Your task to perform on an android device: Empty the shopping cart on newegg. Add logitech g pro to the cart on newegg, then select checkout. Image 0: 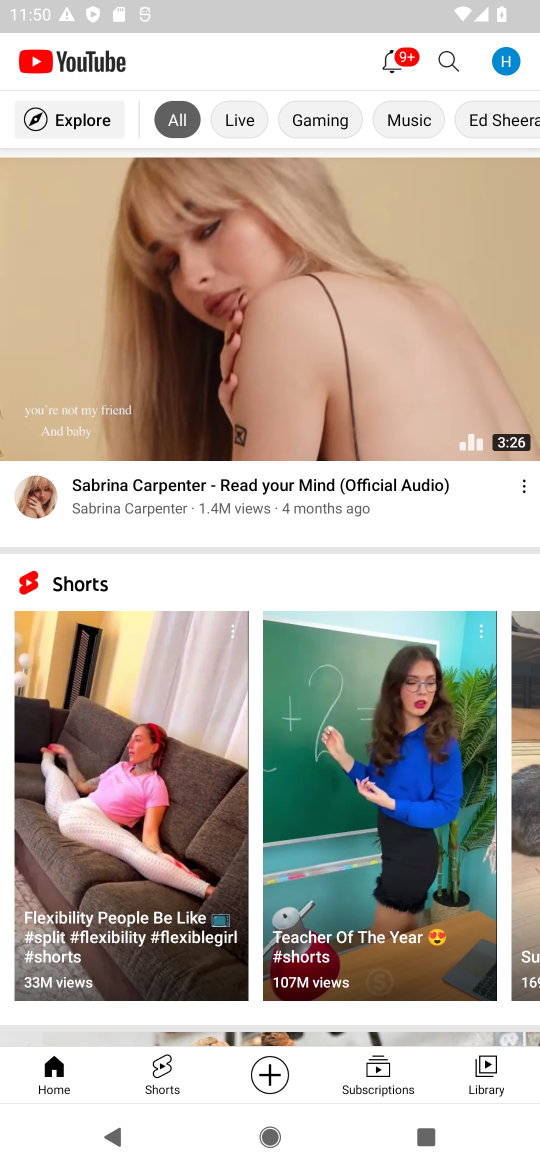
Step 0: press home button
Your task to perform on an android device: Empty the shopping cart on newegg. Add logitech g pro to the cart on newegg, then select checkout. Image 1: 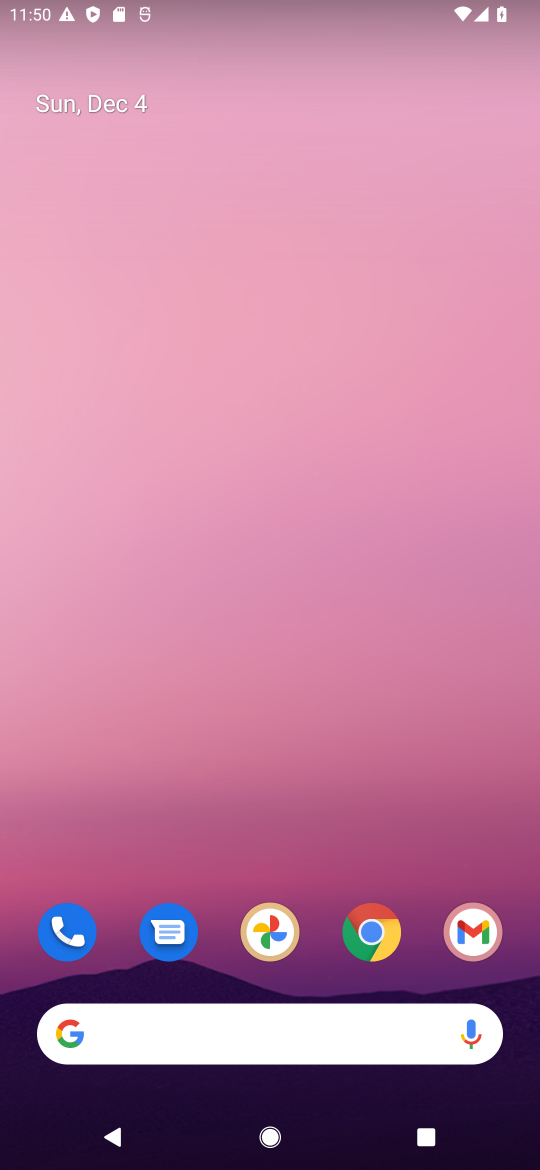
Step 1: click (374, 938)
Your task to perform on an android device: Empty the shopping cart on newegg. Add logitech g pro to the cart on newegg, then select checkout. Image 2: 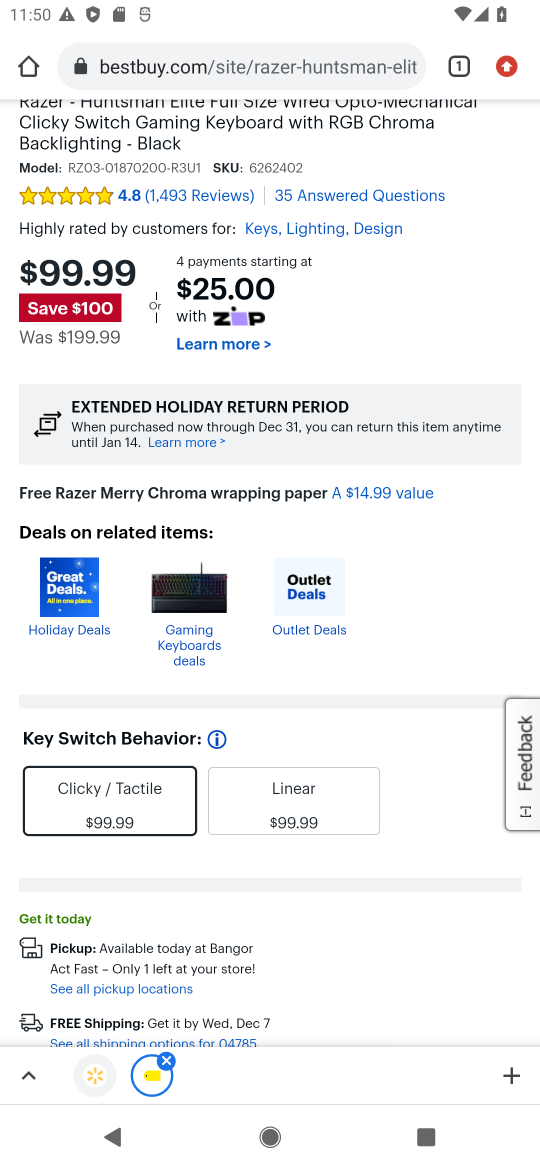
Step 2: click (281, 65)
Your task to perform on an android device: Empty the shopping cart on newegg. Add logitech g pro to the cart on newegg, then select checkout. Image 3: 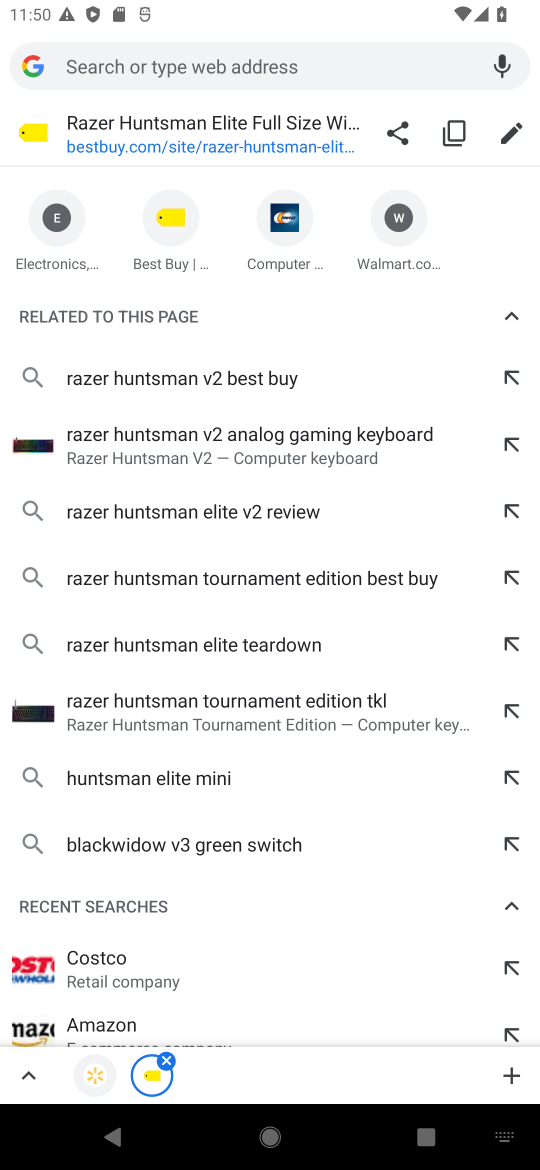
Step 3: type "newegg"
Your task to perform on an android device: Empty the shopping cart on newegg. Add logitech g pro to the cart on newegg, then select checkout. Image 4: 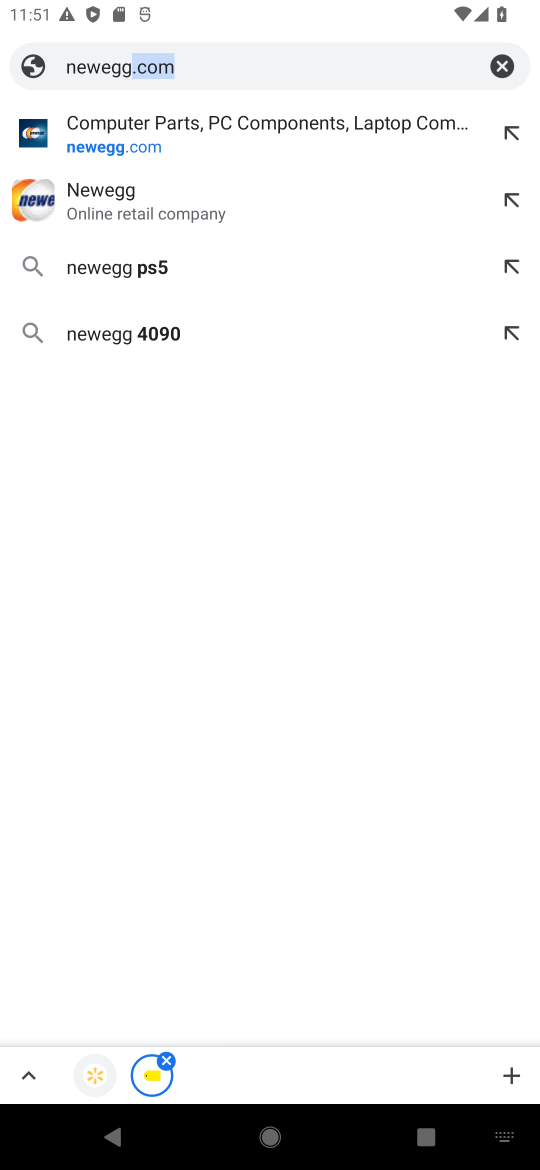
Step 4: click (174, 142)
Your task to perform on an android device: Empty the shopping cart on newegg. Add logitech g pro to the cart on newegg, then select checkout. Image 5: 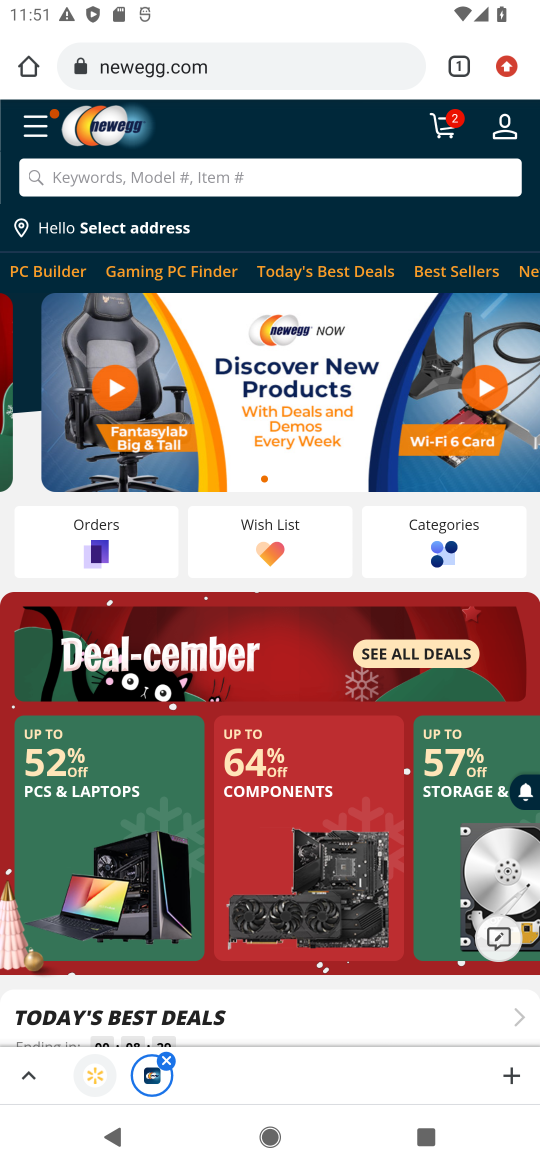
Step 5: click (447, 122)
Your task to perform on an android device: Empty the shopping cart on newegg. Add logitech g pro to the cart on newegg, then select checkout. Image 6: 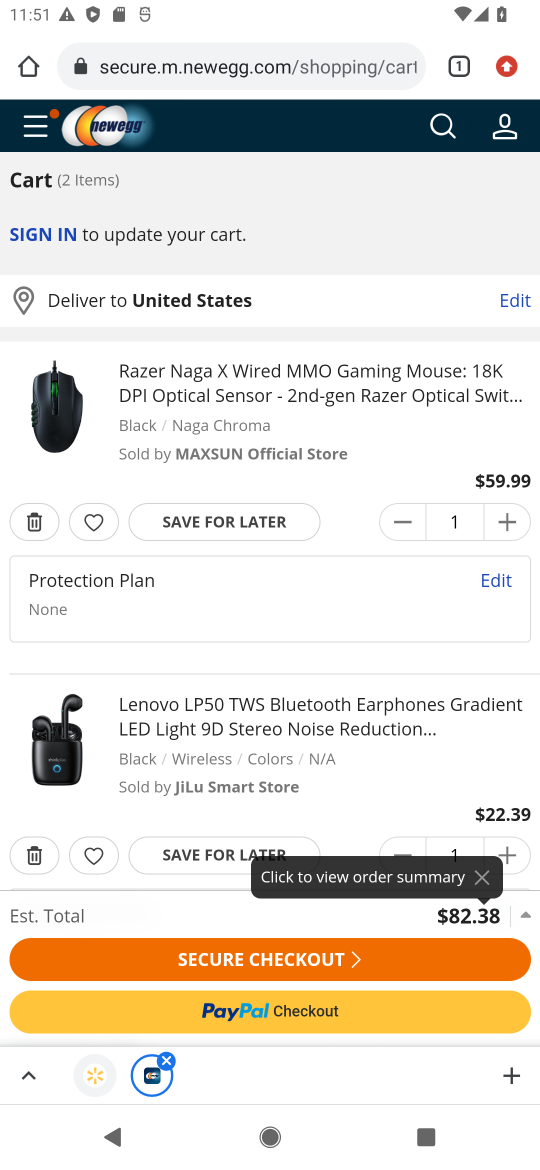
Step 6: click (37, 854)
Your task to perform on an android device: Empty the shopping cart on newegg. Add logitech g pro to the cart on newegg, then select checkout. Image 7: 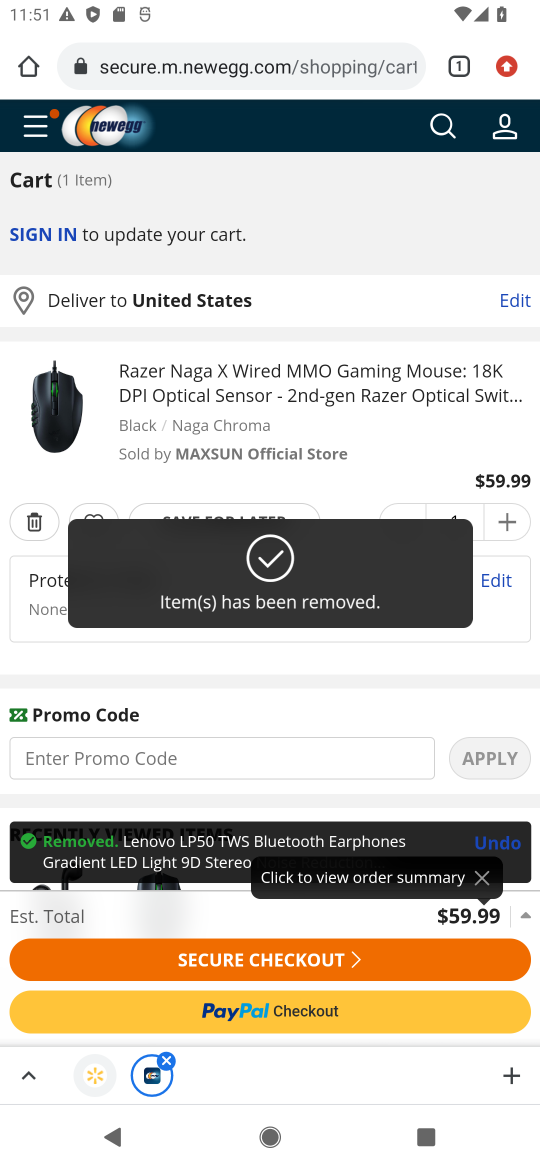
Step 7: click (37, 520)
Your task to perform on an android device: Empty the shopping cart on newegg. Add logitech g pro to the cart on newegg, then select checkout. Image 8: 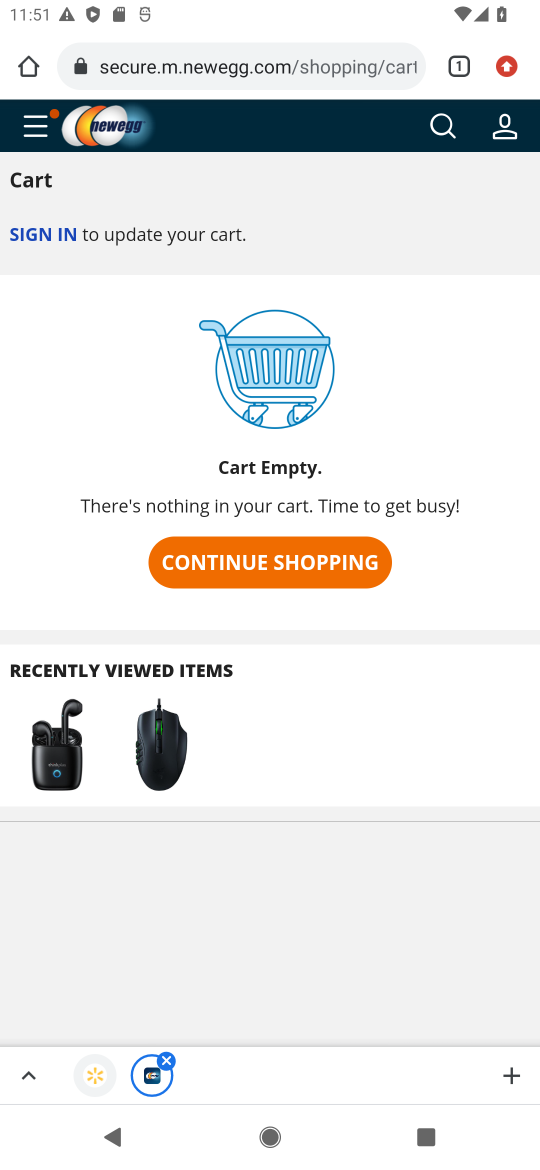
Step 8: click (439, 128)
Your task to perform on an android device: Empty the shopping cart on newegg. Add logitech g pro to the cart on newegg, then select checkout. Image 9: 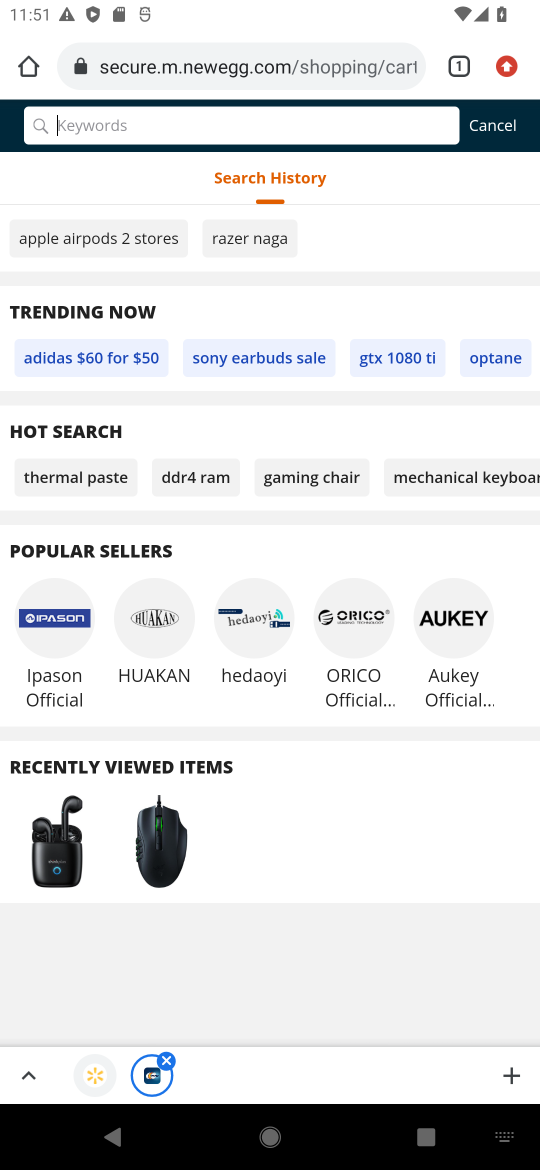
Step 9: type "logitech g pro"
Your task to perform on an android device: Empty the shopping cart on newegg. Add logitech g pro to the cart on newegg, then select checkout. Image 10: 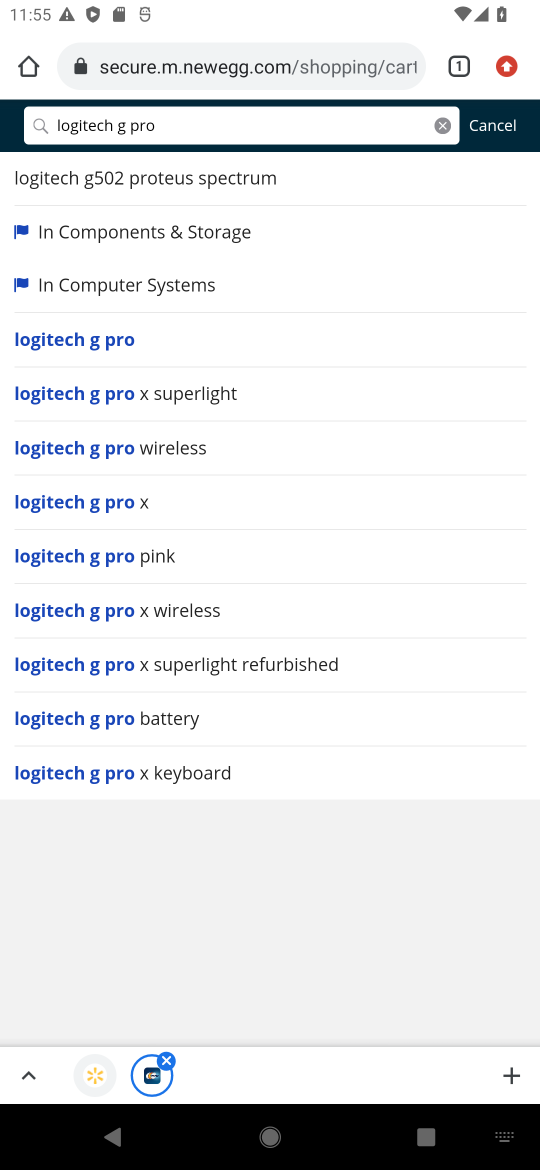
Step 10: click (232, 177)
Your task to perform on an android device: Empty the shopping cart on newegg. Add logitech g pro to the cart on newegg, then select checkout. Image 11: 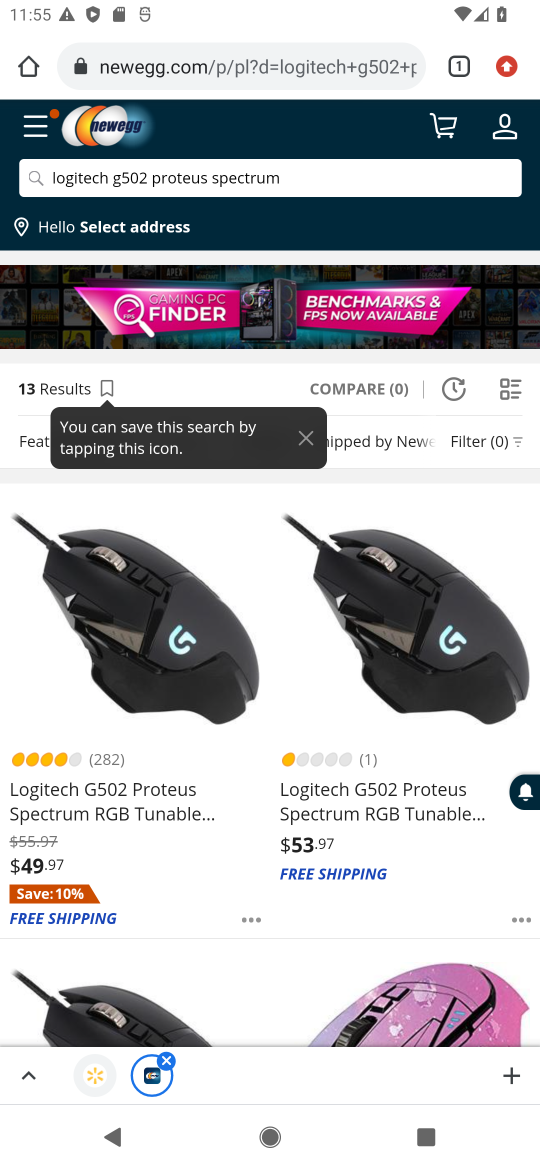
Step 11: click (186, 642)
Your task to perform on an android device: Empty the shopping cart on newegg. Add logitech g pro to the cart on newegg, then select checkout. Image 12: 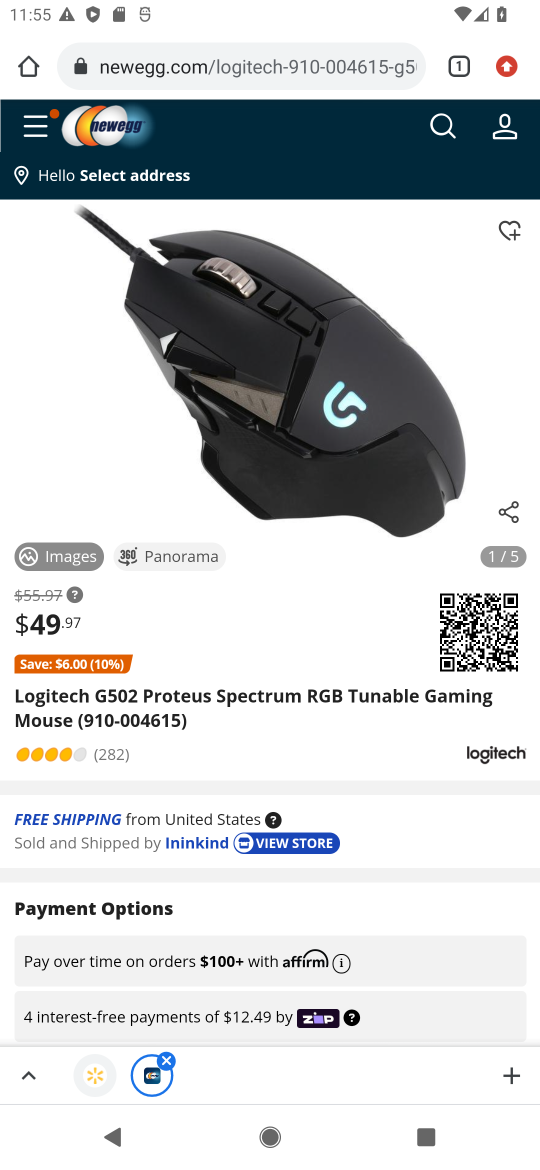
Step 12: drag from (264, 983) to (285, 319)
Your task to perform on an android device: Empty the shopping cart on newegg. Add logitech g pro to the cart on newegg, then select checkout. Image 13: 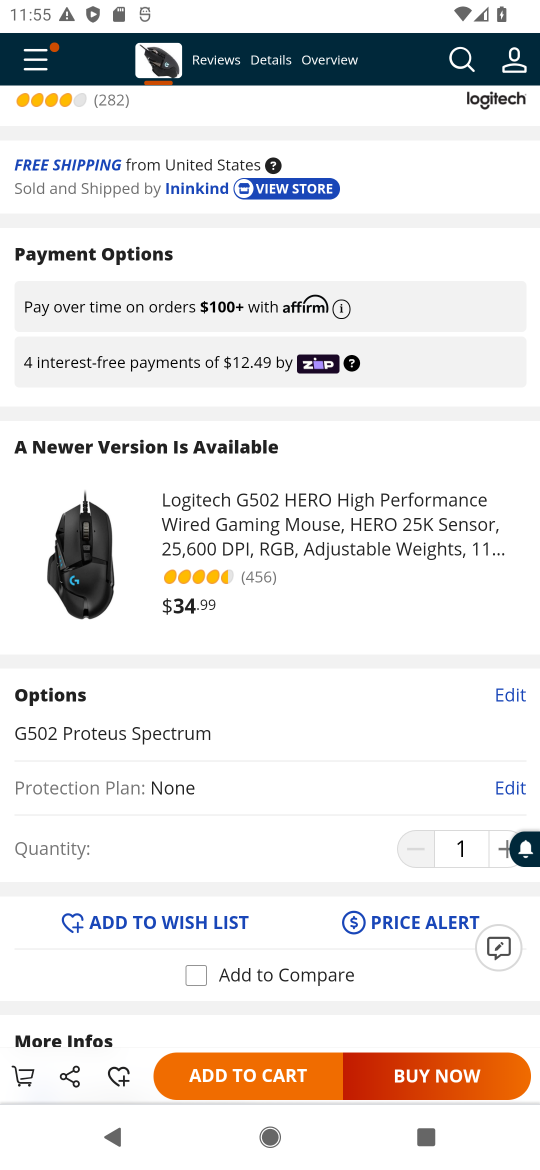
Step 13: click (260, 1080)
Your task to perform on an android device: Empty the shopping cart on newegg. Add logitech g pro to the cart on newegg, then select checkout. Image 14: 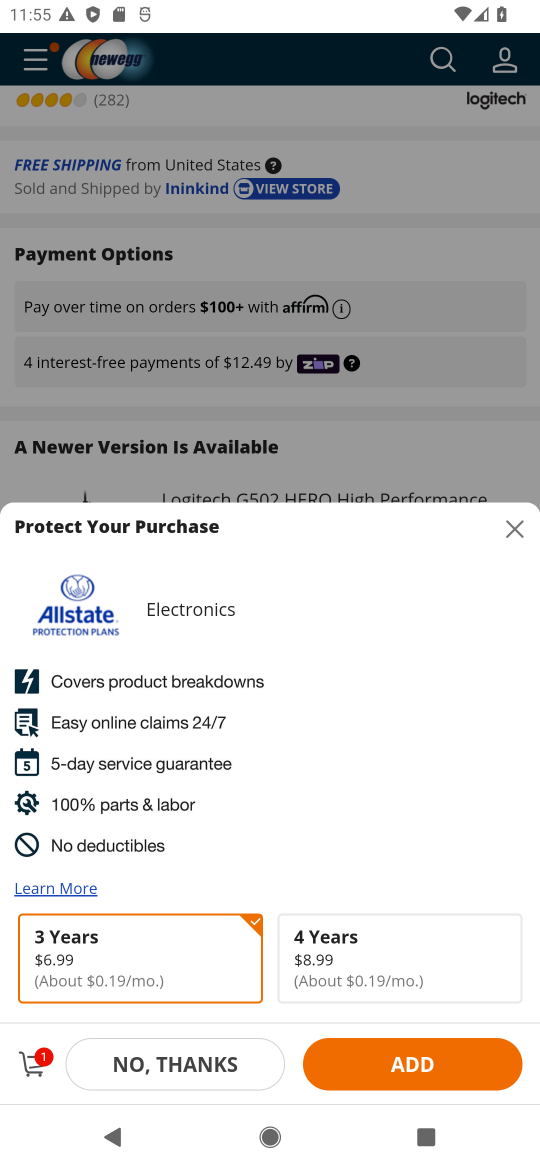
Step 14: click (375, 1072)
Your task to perform on an android device: Empty the shopping cart on newegg. Add logitech g pro to the cart on newegg, then select checkout. Image 15: 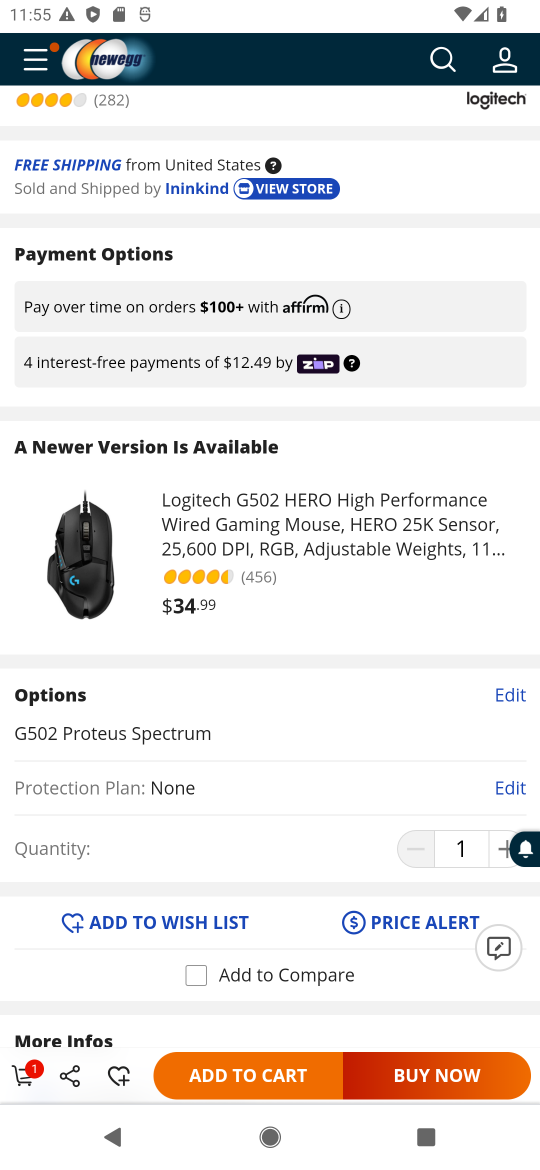
Step 15: click (502, 63)
Your task to perform on an android device: Empty the shopping cart on newegg. Add logitech g pro to the cart on newegg, then select checkout. Image 16: 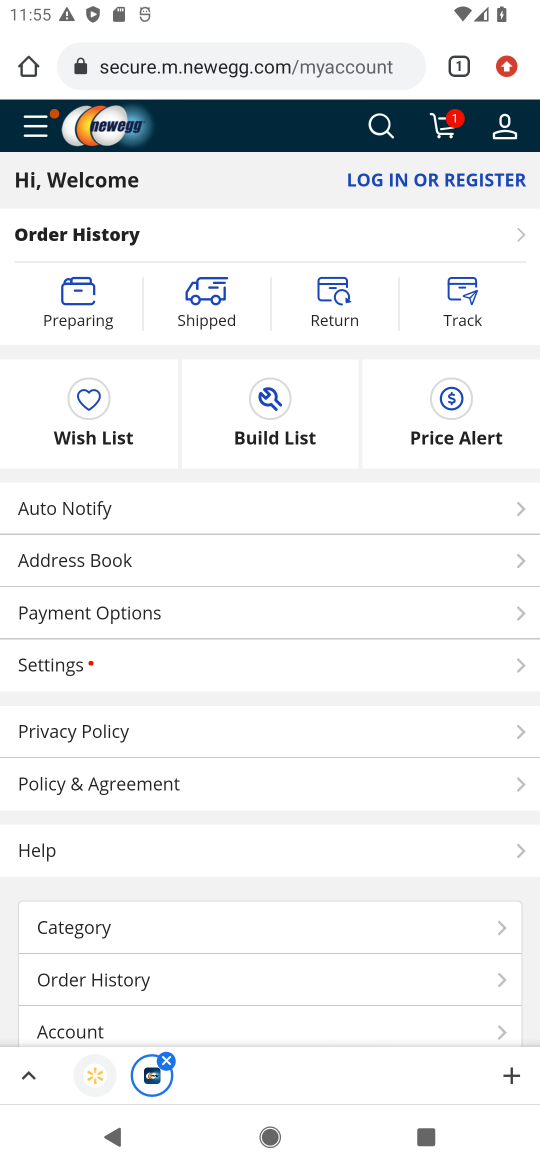
Step 16: task complete